Your task to perform on an android device: toggle wifi Image 0: 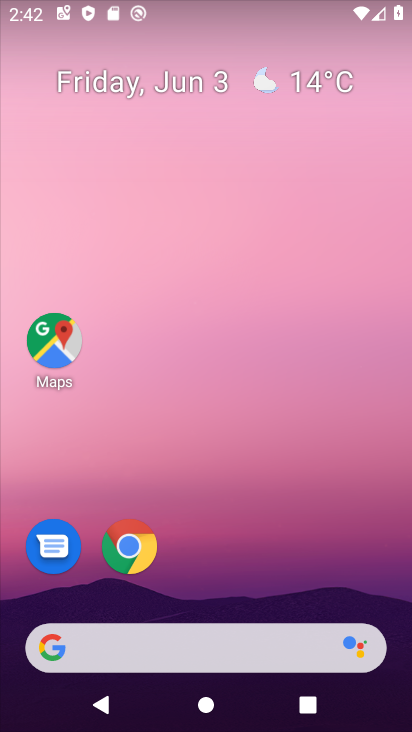
Step 0: drag from (264, 528) to (338, 24)
Your task to perform on an android device: toggle wifi Image 1: 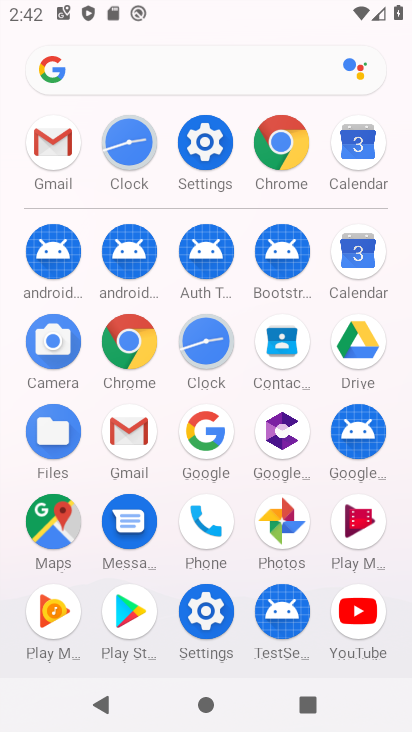
Step 1: click (205, 116)
Your task to perform on an android device: toggle wifi Image 2: 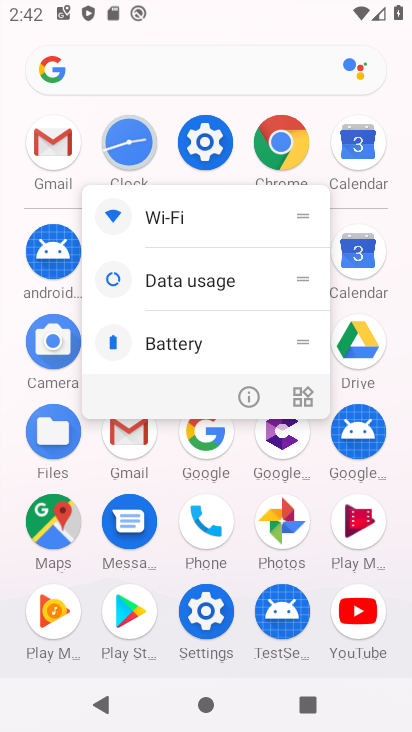
Step 2: click (205, 115)
Your task to perform on an android device: toggle wifi Image 3: 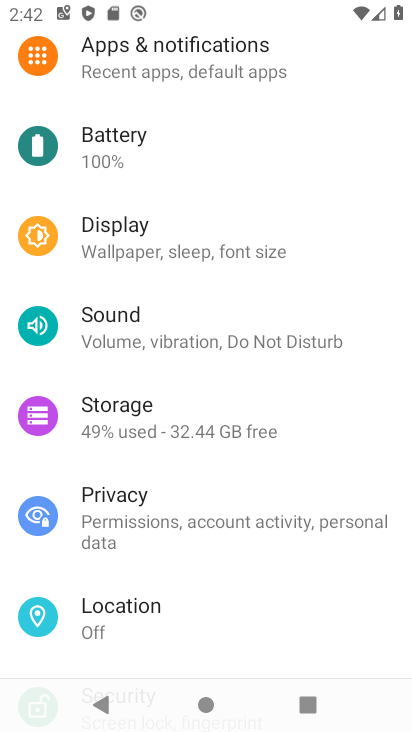
Step 3: drag from (204, 115) to (198, 522)
Your task to perform on an android device: toggle wifi Image 4: 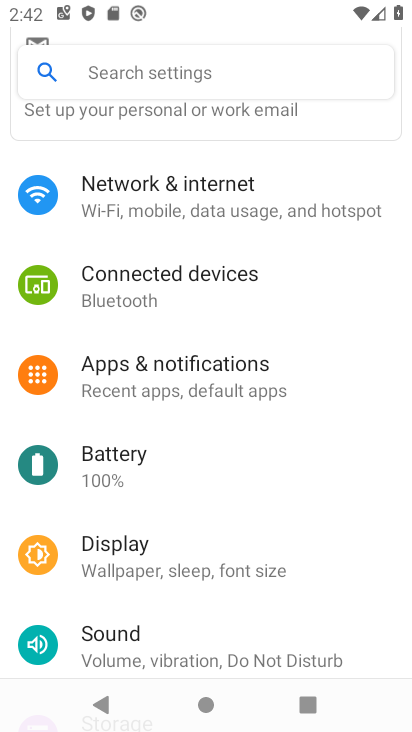
Step 4: drag from (204, 172) to (240, 596)
Your task to perform on an android device: toggle wifi Image 5: 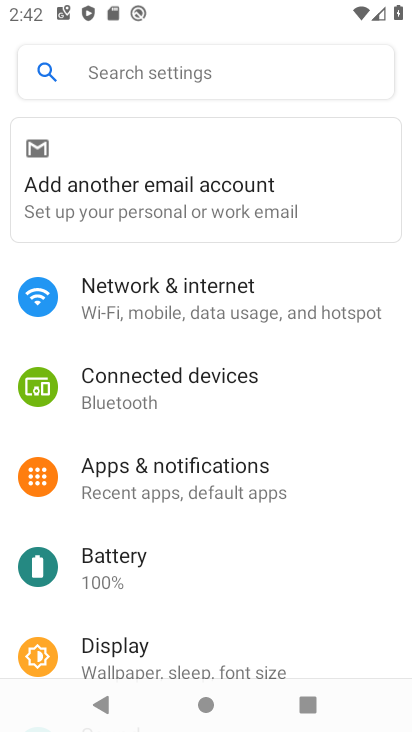
Step 5: click (207, 320)
Your task to perform on an android device: toggle wifi Image 6: 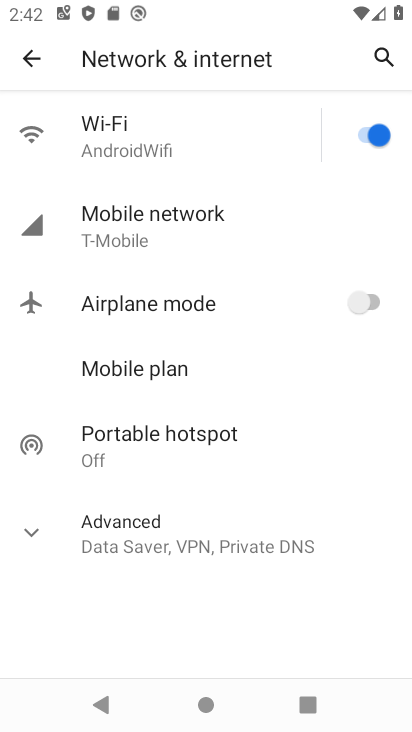
Step 6: click (382, 135)
Your task to perform on an android device: toggle wifi Image 7: 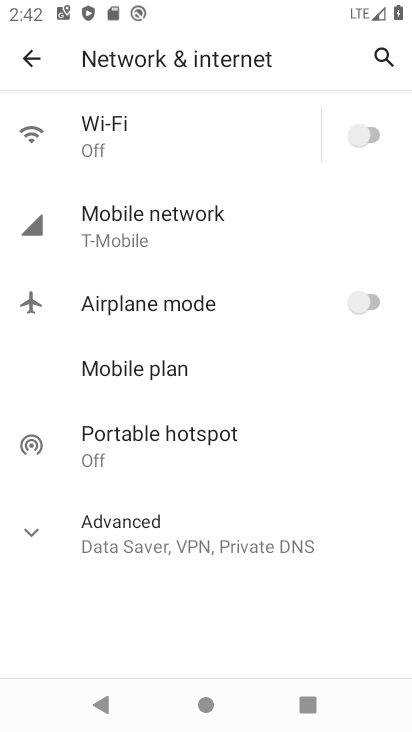
Step 7: task complete